Your task to perform on an android device: turn off airplane mode Image 0: 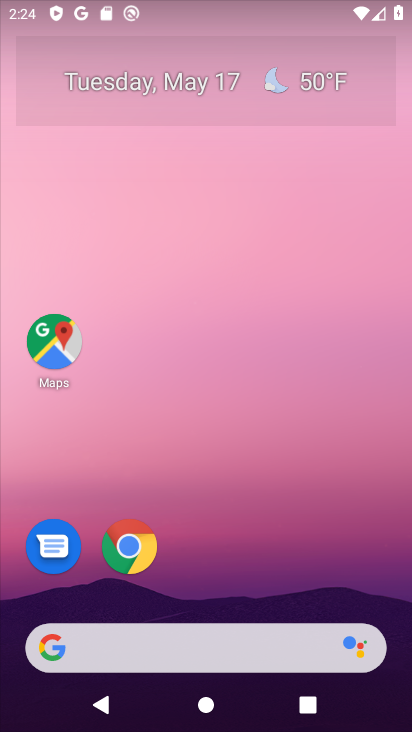
Step 0: drag from (250, 592) to (400, 22)
Your task to perform on an android device: turn off airplane mode Image 1: 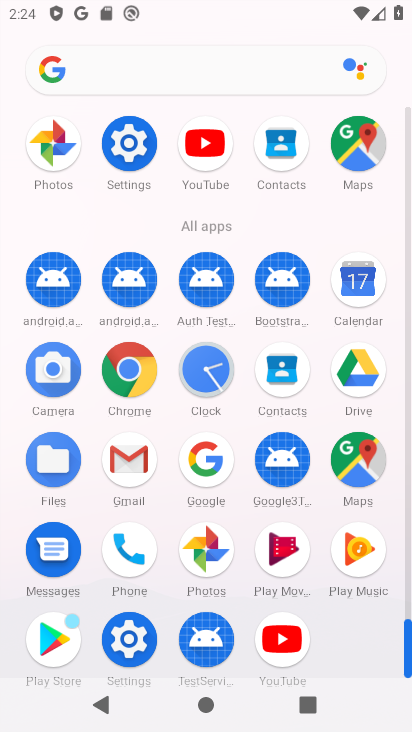
Step 1: click (138, 175)
Your task to perform on an android device: turn off airplane mode Image 2: 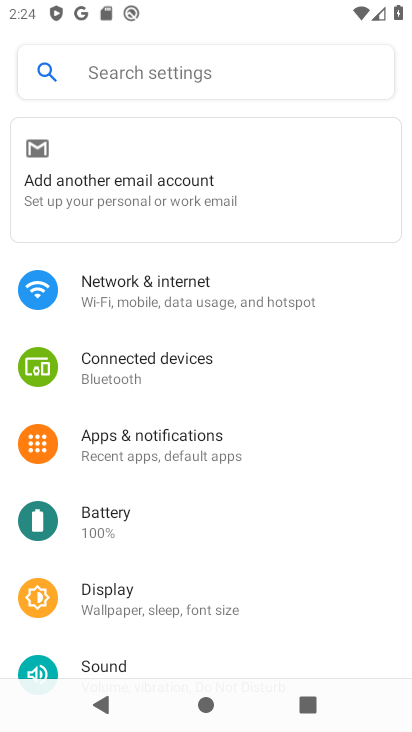
Step 2: click (152, 296)
Your task to perform on an android device: turn off airplane mode Image 3: 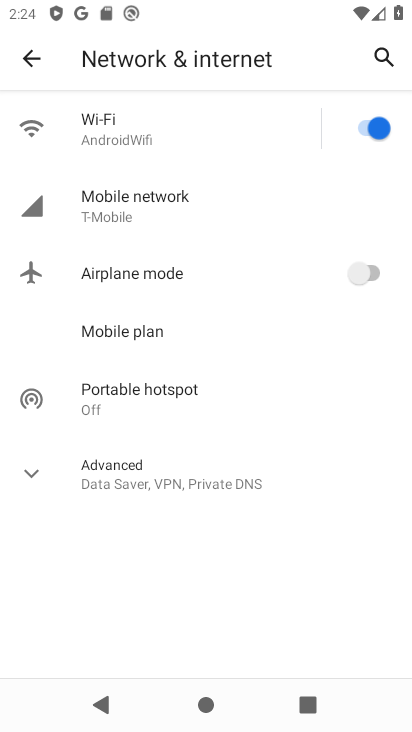
Step 3: task complete